Your task to perform on an android device: turn off sleep mode Image 0: 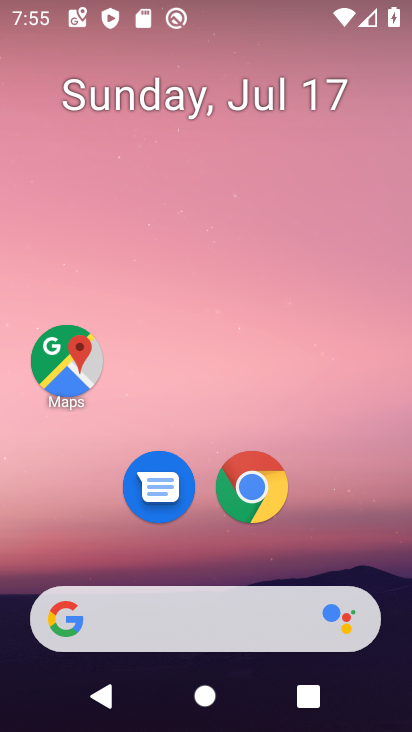
Step 0: drag from (124, 470) to (207, 51)
Your task to perform on an android device: turn off sleep mode Image 1: 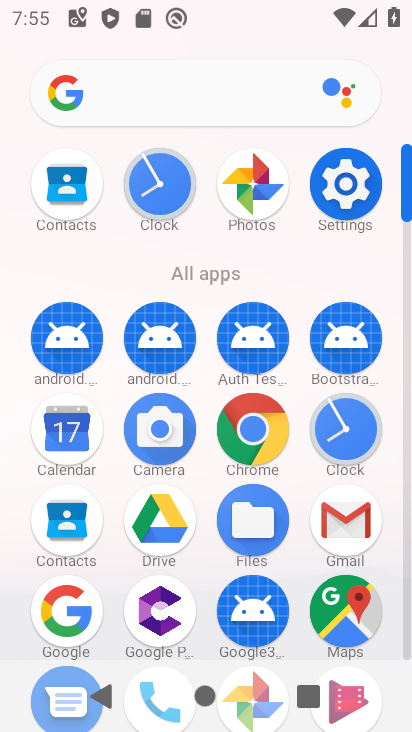
Step 1: click (334, 176)
Your task to perform on an android device: turn off sleep mode Image 2: 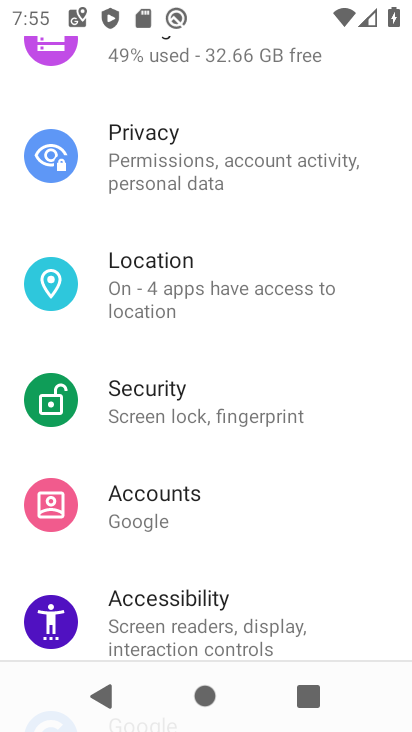
Step 2: drag from (173, 159) to (151, 599)
Your task to perform on an android device: turn off sleep mode Image 3: 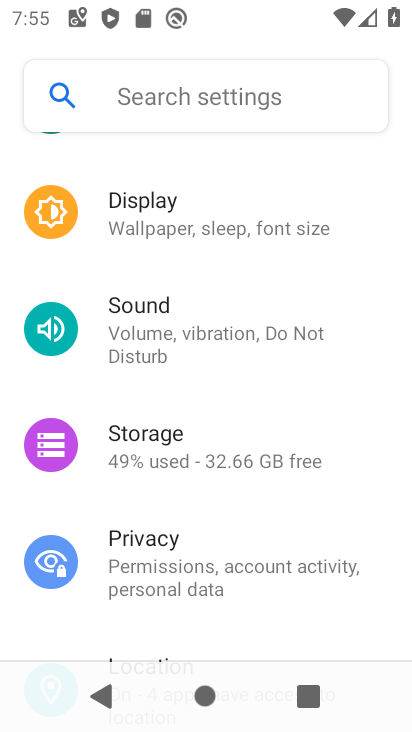
Step 3: click (204, 90)
Your task to perform on an android device: turn off sleep mode Image 4: 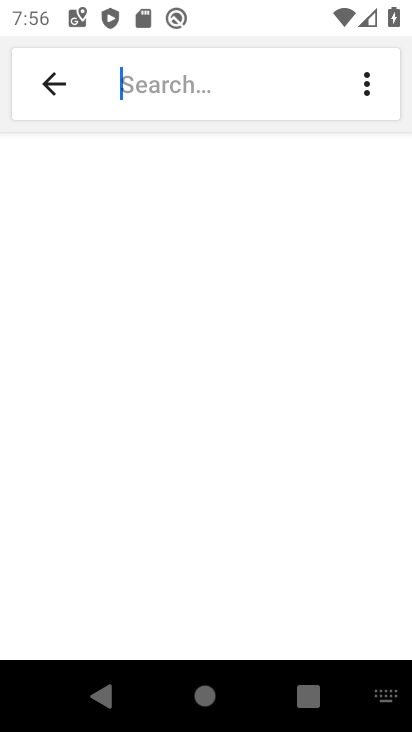
Step 4: type "sleep mode"
Your task to perform on an android device: turn off sleep mode Image 5: 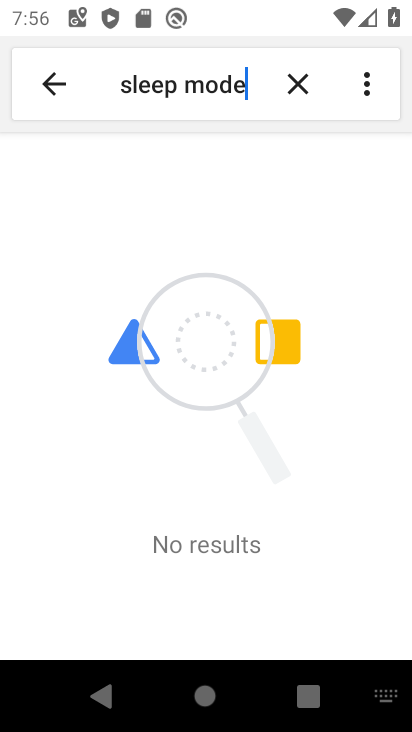
Step 5: task complete